Your task to perform on an android device: Open the Play Movies app and select the watchlist tab. Image 0: 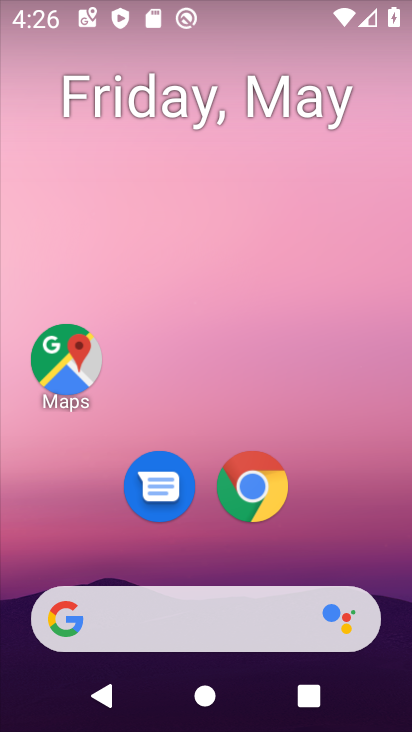
Step 0: drag from (359, 501) to (344, 11)
Your task to perform on an android device: Open the Play Movies app and select the watchlist tab. Image 1: 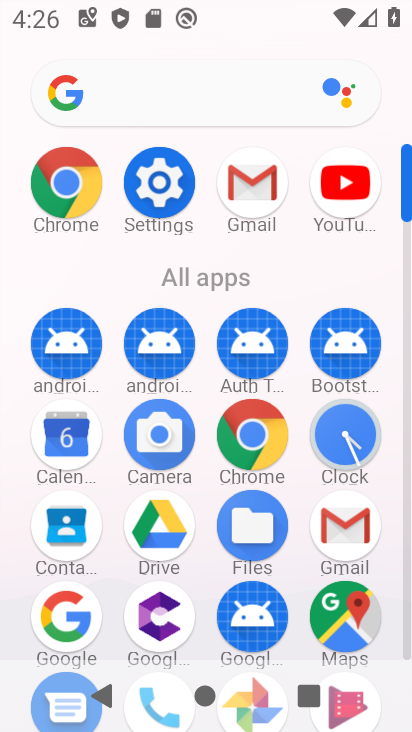
Step 1: drag from (10, 667) to (9, 267)
Your task to perform on an android device: Open the Play Movies app and select the watchlist tab. Image 2: 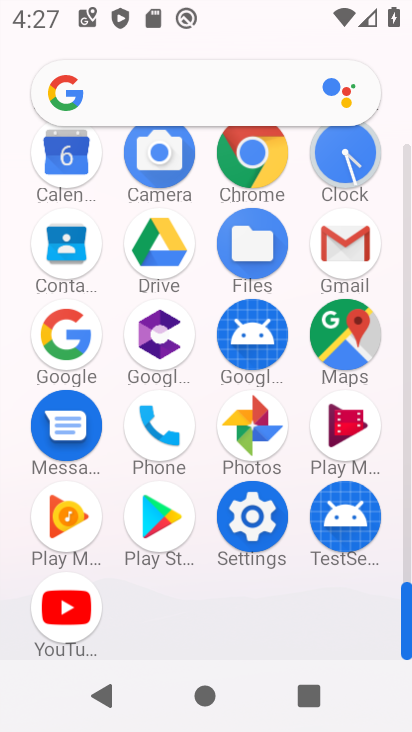
Step 2: drag from (29, 224) to (20, 267)
Your task to perform on an android device: Open the Play Movies app and select the watchlist tab. Image 3: 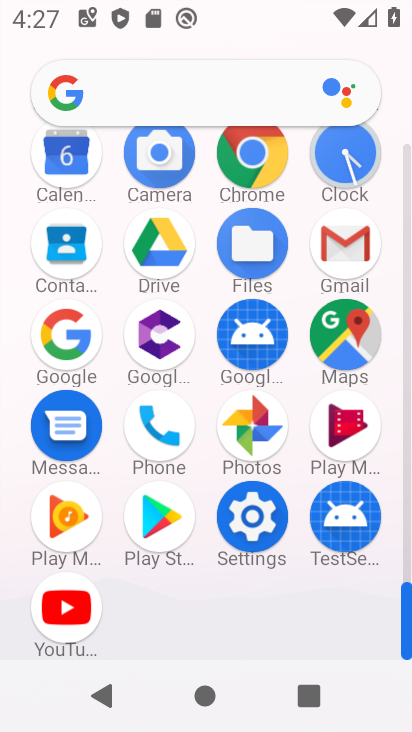
Step 3: click (350, 420)
Your task to perform on an android device: Open the Play Movies app and select the watchlist tab. Image 4: 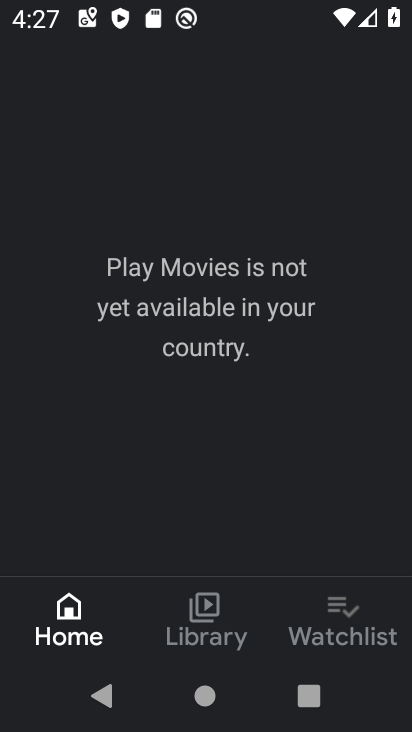
Step 4: click (331, 606)
Your task to perform on an android device: Open the Play Movies app and select the watchlist tab. Image 5: 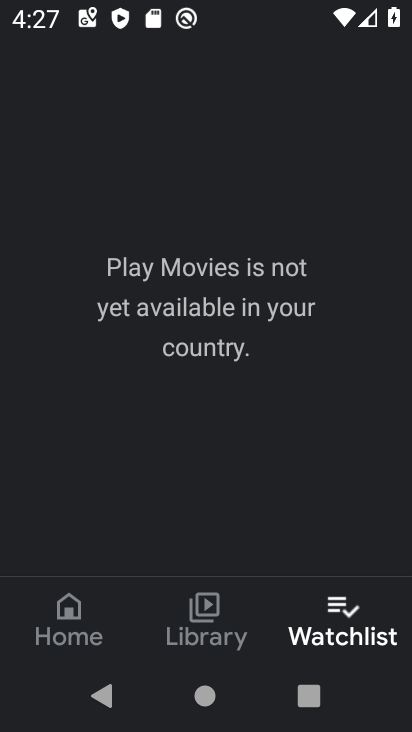
Step 5: task complete